Your task to perform on an android device: toggle notifications settings in the gmail app Image 0: 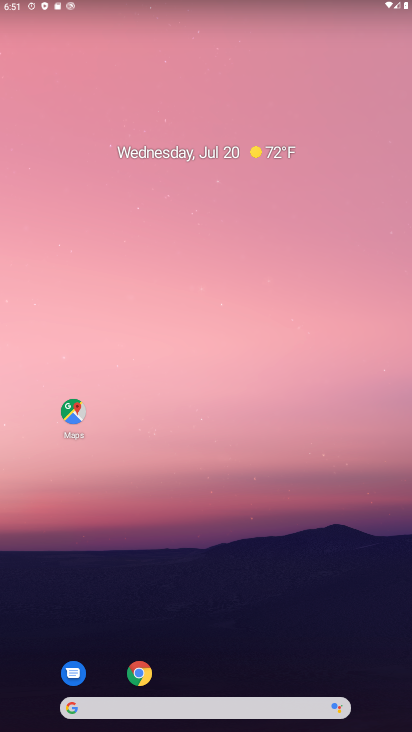
Step 0: drag from (345, 671) to (224, 22)
Your task to perform on an android device: toggle notifications settings in the gmail app Image 1: 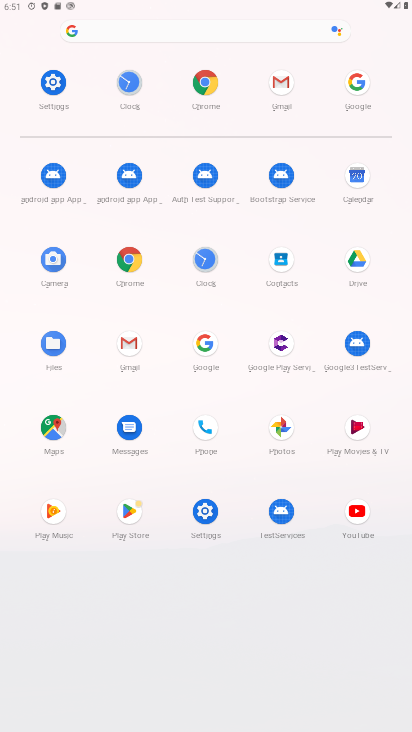
Step 1: click (128, 353)
Your task to perform on an android device: toggle notifications settings in the gmail app Image 2: 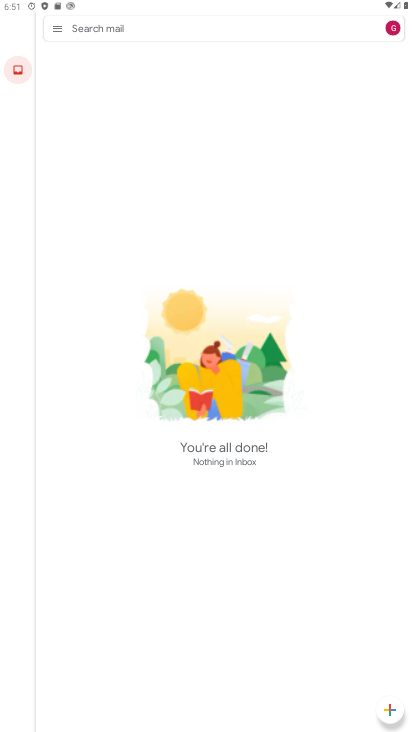
Step 2: click (55, 31)
Your task to perform on an android device: toggle notifications settings in the gmail app Image 3: 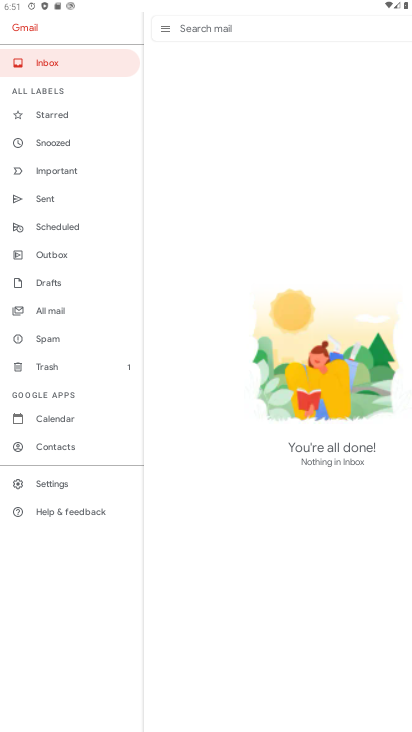
Step 3: click (52, 476)
Your task to perform on an android device: toggle notifications settings in the gmail app Image 4: 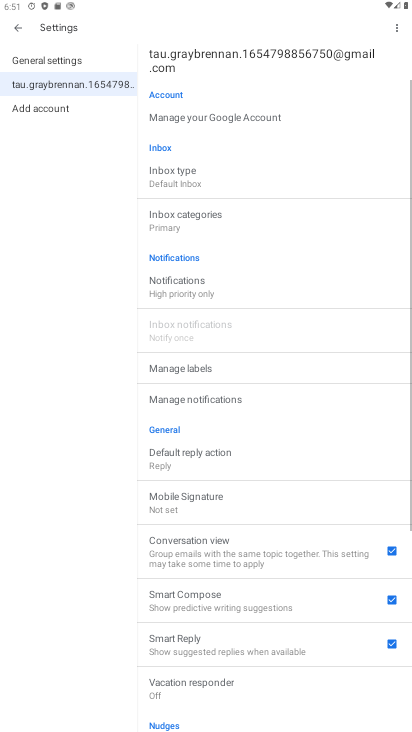
Step 4: click (169, 286)
Your task to perform on an android device: toggle notifications settings in the gmail app Image 5: 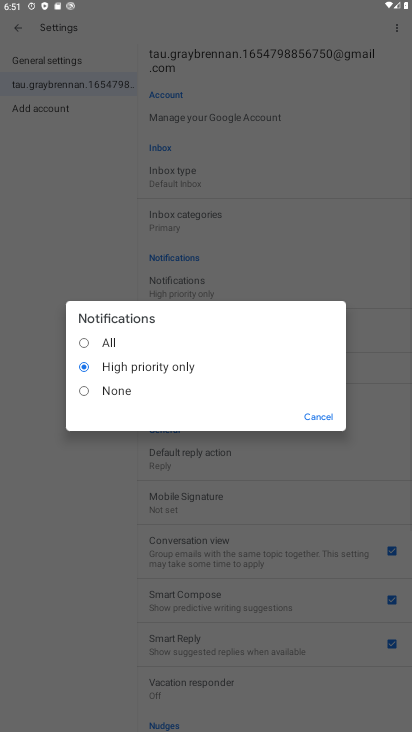
Step 5: click (90, 336)
Your task to perform on an android device: toggle notifications settings in the gmail app Image 6: 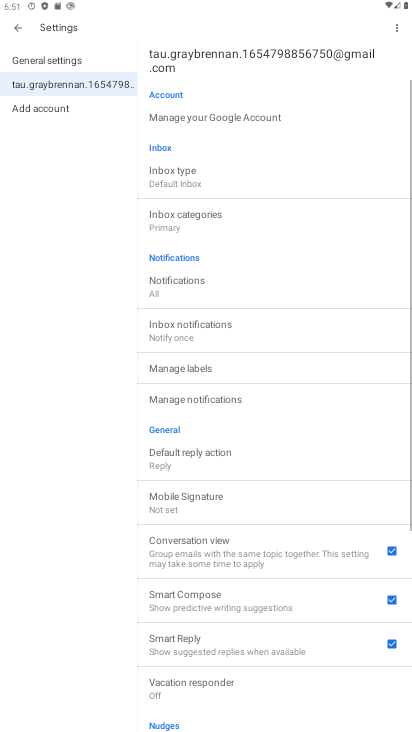
Step 6: task complete